Your task to perform on an android device: Open CNN.com Image 0: 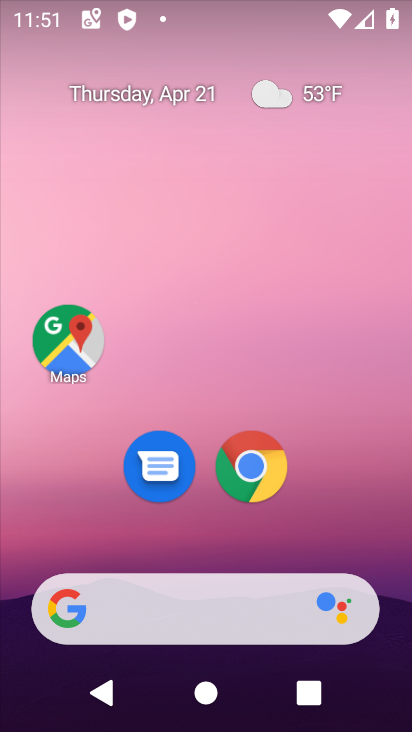
Step 0: drag from (340, 487) to (315, 12)
Your task to perform on an android device: Open CNN.com Image 1: 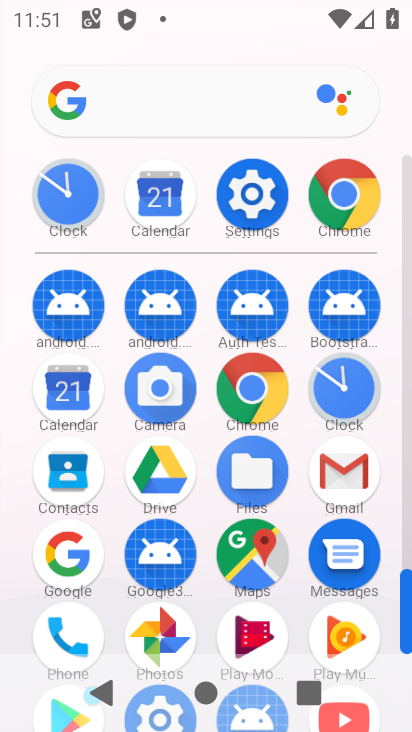
Step 1: click (254, 384)
Your task to perform on an android device: Open CNN.com Image 2: 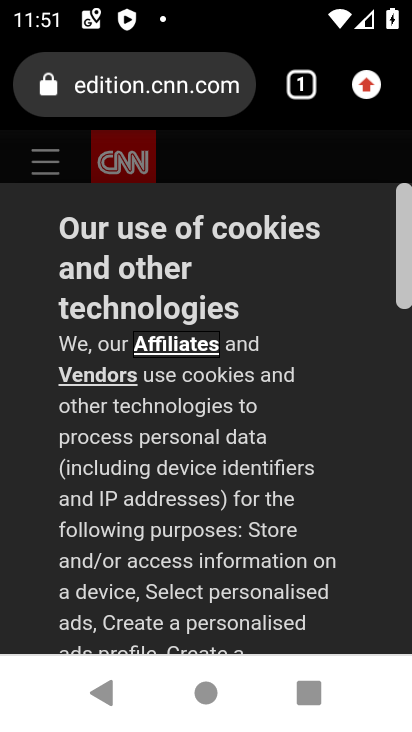
Step 2: task complete